Your task to perform on an android device: turn on the 24-hour format for clock Image 0: 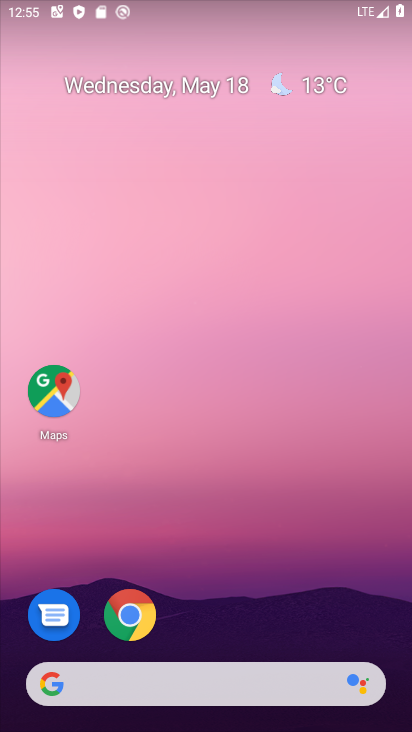
Step 0: drag from (190, 691) to (320, 267)
Your task to perform on an android device: turn on the 24-hour format for clock Image 1: 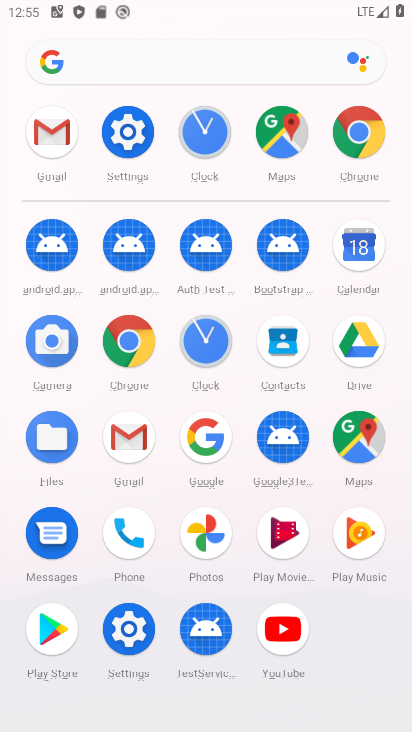
Step 1: click (212, 345)
Your task to perform on an android device: turn on the 24-hour format for clock Image 2: 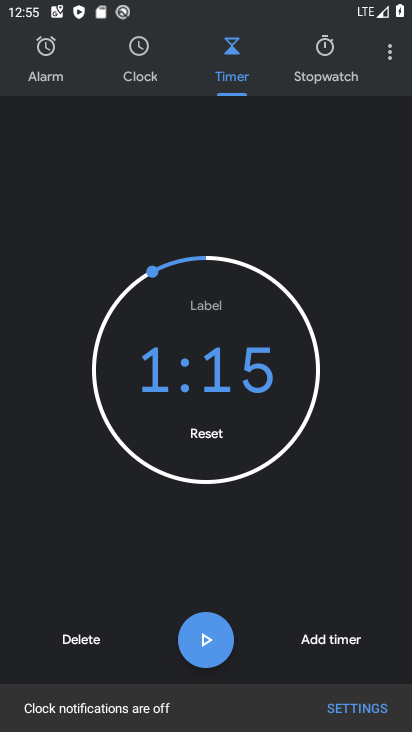
Step 2: click (388, 60)
Your task to perform on an android device: turn on the 24-hour format for clock Image 3: 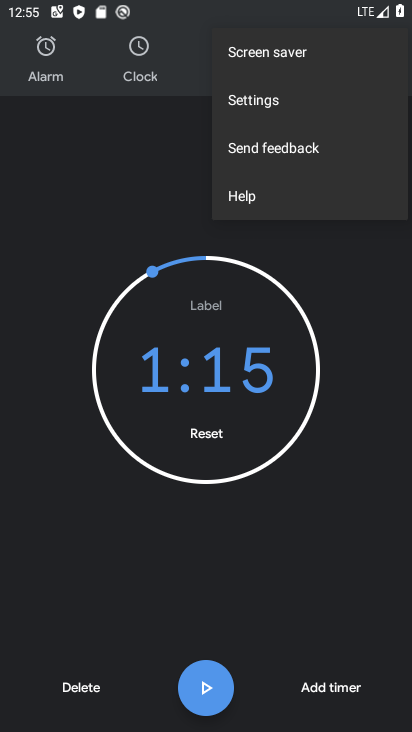
Step 3: click (271, 107)
Your task to perform on an android device: turn on the 24-hour format for clock Image 4: 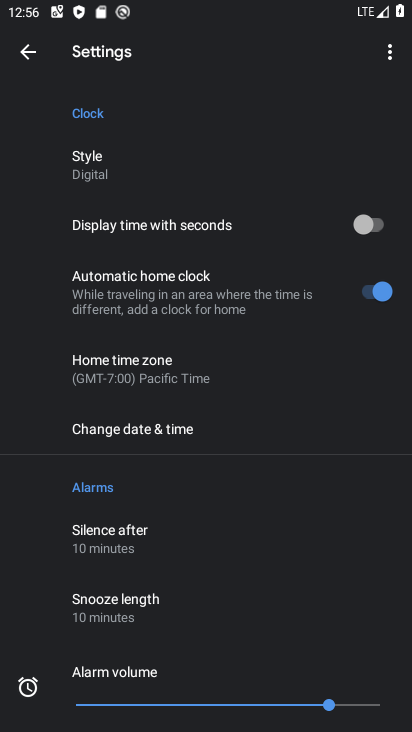
Step 4: drag from (236, 619) to (340, 326)
Your task to perform on an android device: turn on the 24-hour format for clock Image 5: 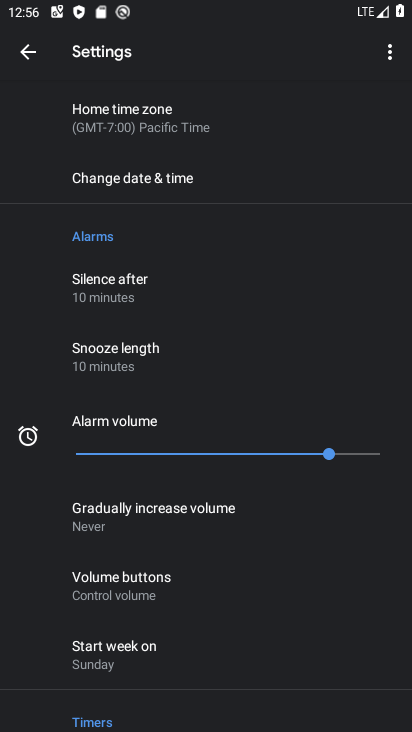
Step 5: click (180, 181)
Your task to perform on an android device: turn on the 24-hour format for clock Image 6: 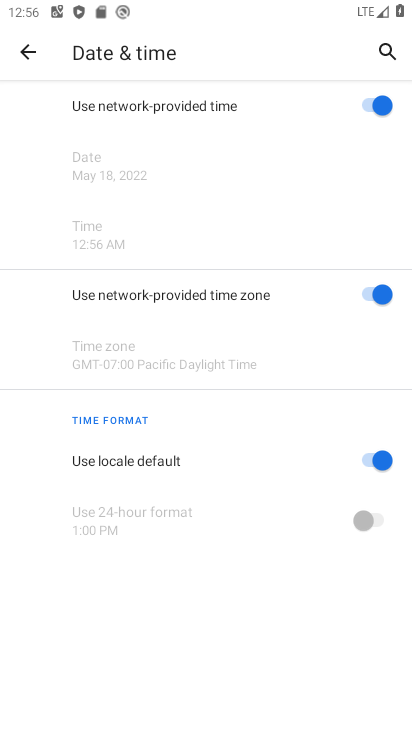
Step 6: click (366, 464)
Your task to perform on an android device: turn on the 24-hour format for clock Image 7: 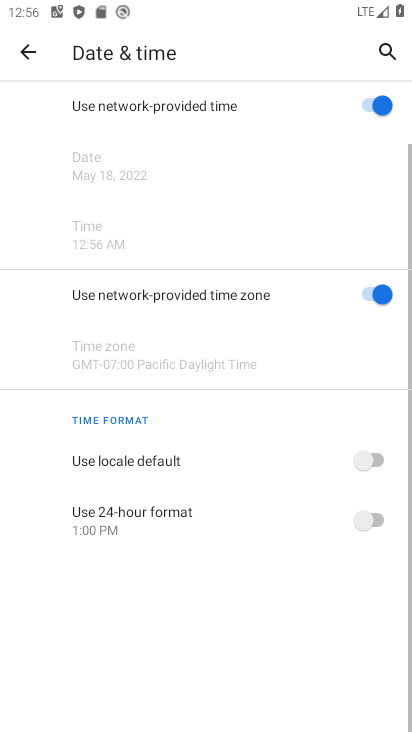
Step 7: click (377, 517)
Your task to perform on an android device: turn on the 24-hour format for clock Image 8: 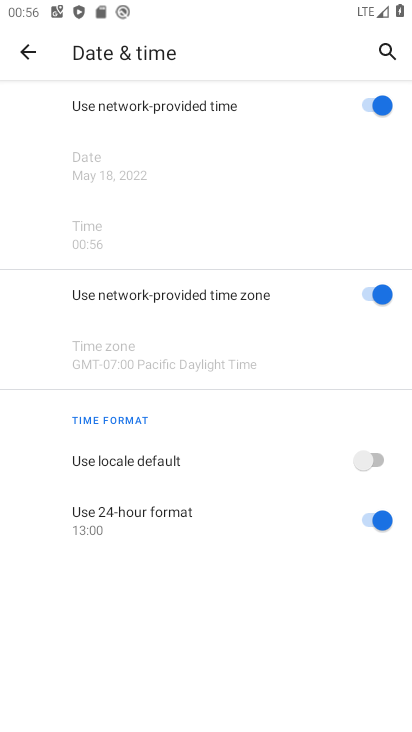
Step 8: task complete